Your task to perform on an android device: make emails show in primary in the gmail app Image 0: 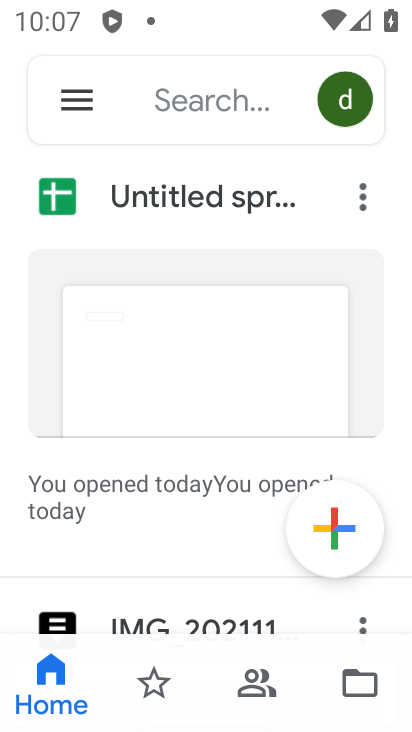
Step 0: press home button
Your task to perform on an android device: make emails show in primary in the gmail app Image 1: 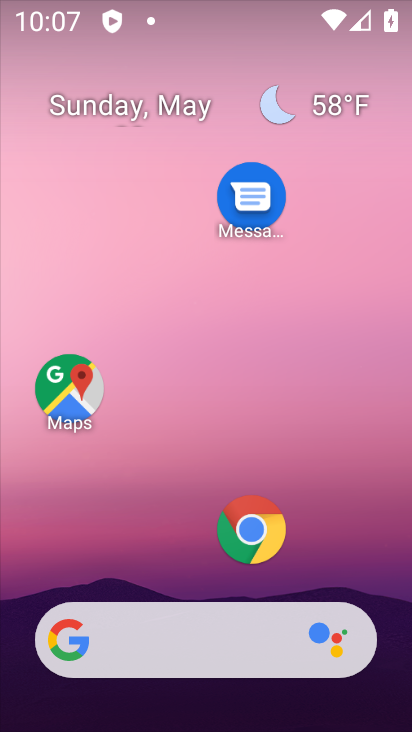
Step 1: drag from (163, 564) to (211, 2)
Your task to perform on an android device: make emails show in primary in the gmail app Image 2: 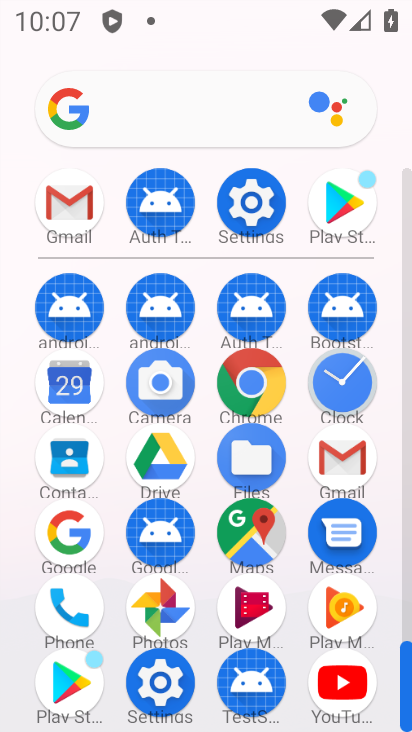
Step 2: click (341, 456)
Your task to perform on an android device: make emails show in primary in the gmail app Image 3: 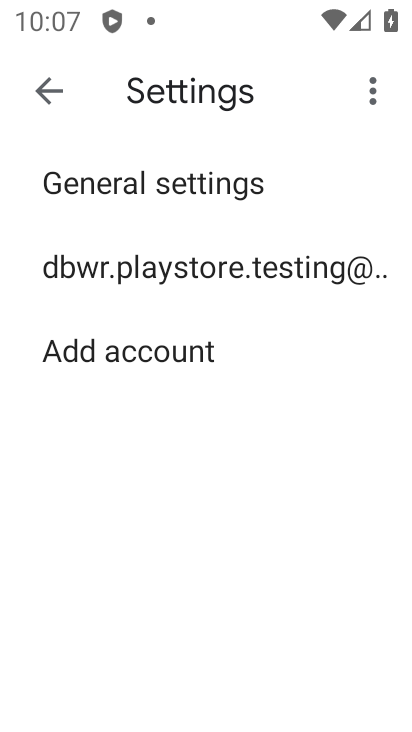
Step 3: click (158, 279)
Your task to perform on an android device: make emails show in primary in the gmail app Image 4: 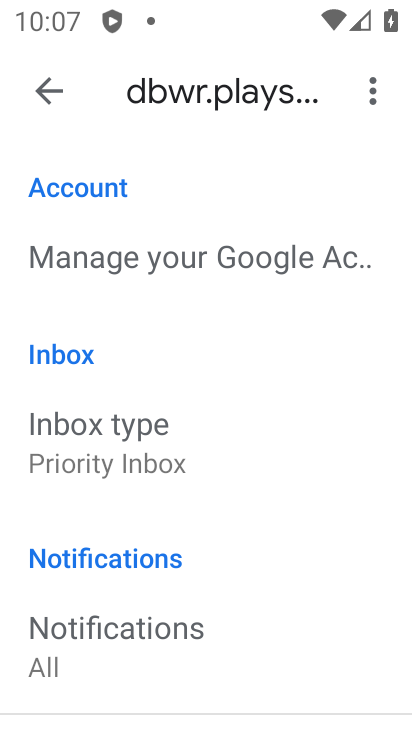
Step 4: click (124, 473)
Your task to perform on an android device: make emails show in primary in the gmail app Image 5: 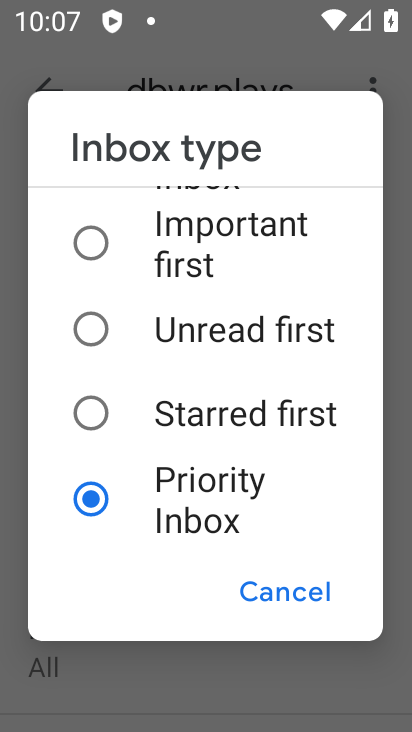
Step 5: drag from (226, 322) to (158, 701)
Your task to perform on an android device: make emails show in primary in the gmail app Image 6: 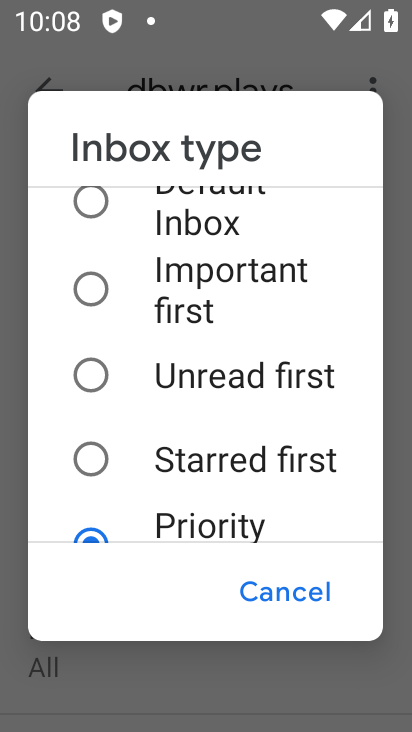
Step 6: click (89, 209)
Your task to perform on an android device: make emails show in primary in the gmail app Image 7: 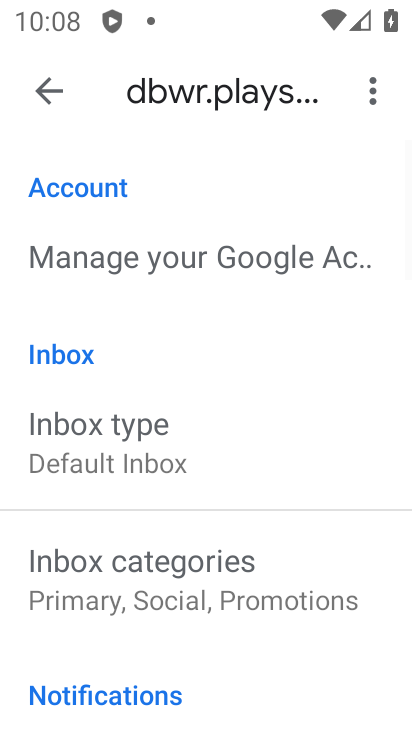
Step 7: click (209, 610)
Your task to perform on an android device: make emails show in primary in the gmail app Image 8: 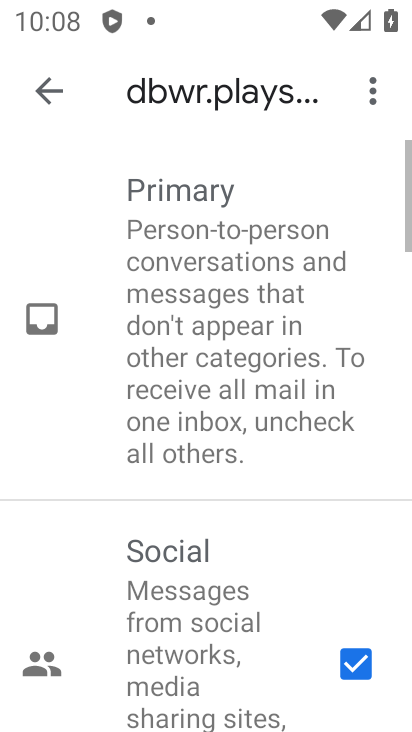
Step 8: drag from (256, 588) to (282, 182)
Your task to perform on an android device: make emails show in primary in the gmail app Image 9: 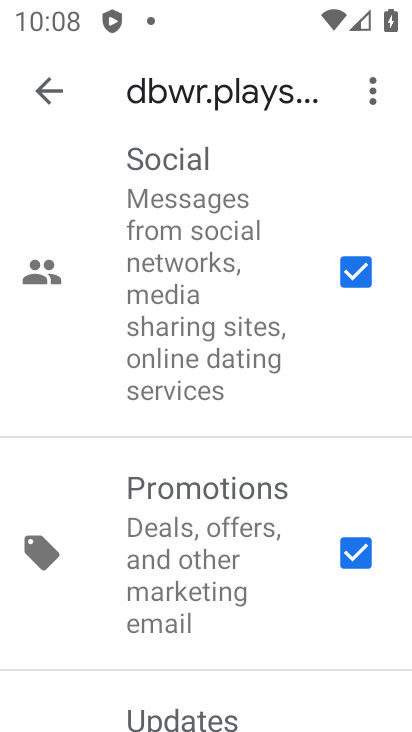
Step 9: click (350, 269)
Your task to perform on an android device: make emails show in primary in the gmail app Image 10: 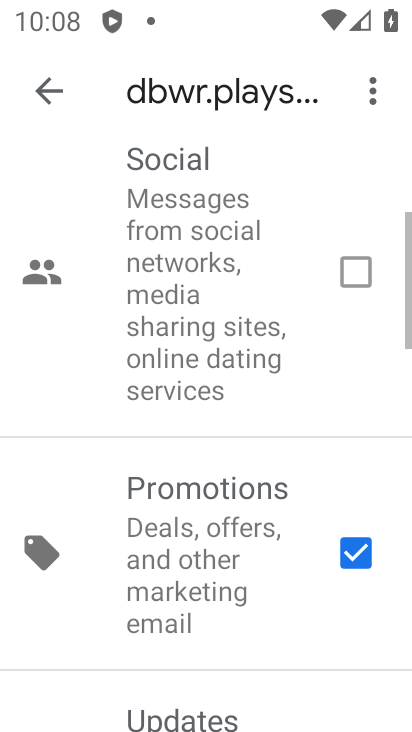
Step 10: click (342, 553)
Your task to perform on an android device: make emails show in primary in the gmail app Image 11: 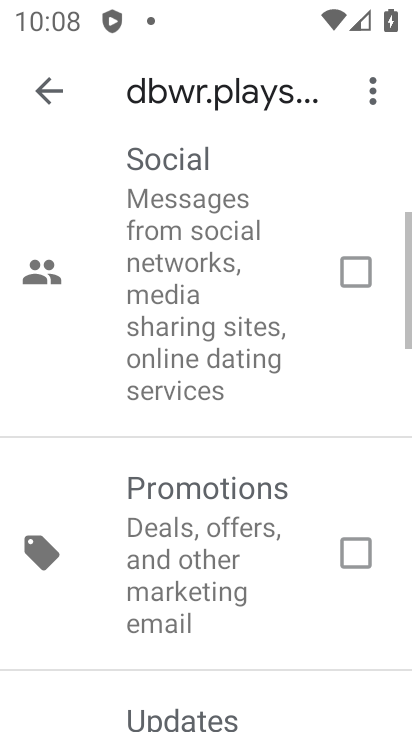
Step 11: task complete